Your task to perform on an android device: Go to Maps Image 0: 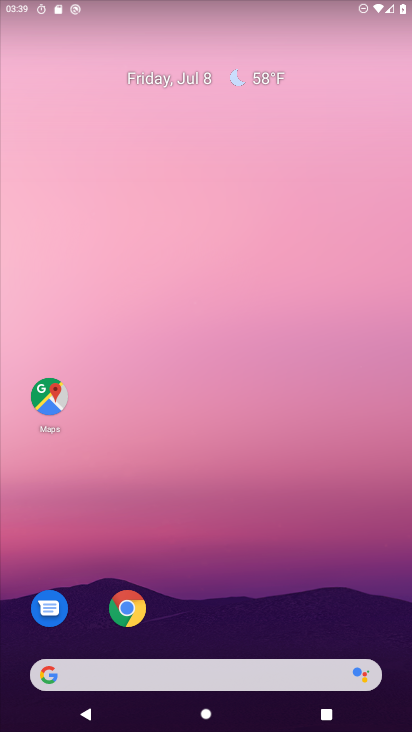
Step 0: click (41, 392)
Your task to perform on an android device: Go to Maps Image 1: 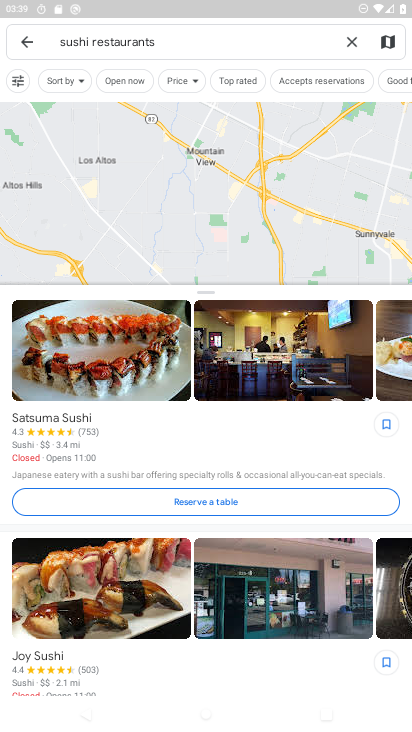
Step 1: task complete